Your task to perform on an android device: Open Google Maps Image 0: 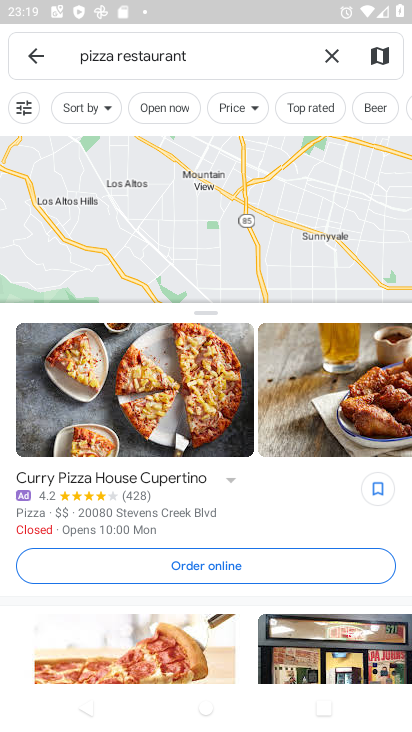
Step 0: press home button
Your task to perform on an android device: Open Google Maps Image 1: 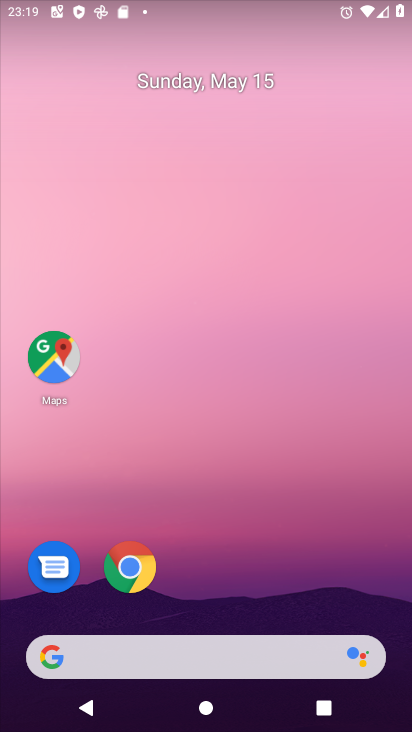
Step 1: click (58, 362)
Your task to perform on an android device: Open Google Maps Image 2: 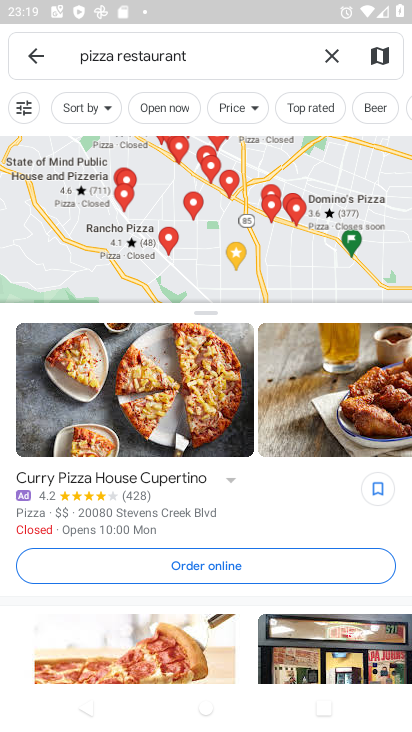
Step 2: task complete